Your task to perform on an android device: Clear all items from cart on target.com. Search for razer nari on target.com, select the first entry, add it to the cart, then select checkout. Image 0: 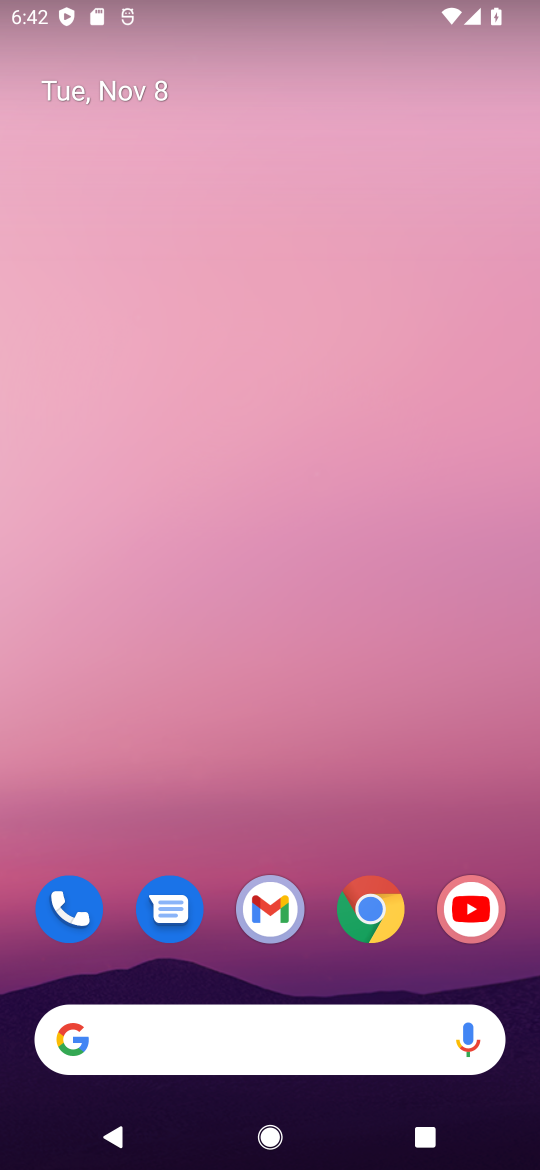
Step 0: click (369, 913)
Your task to perform on an android device: Clear all items from cart on target.com. Search for razer nari on target.com, select the first entry, add it to the cart, then select checkout. Image 1: 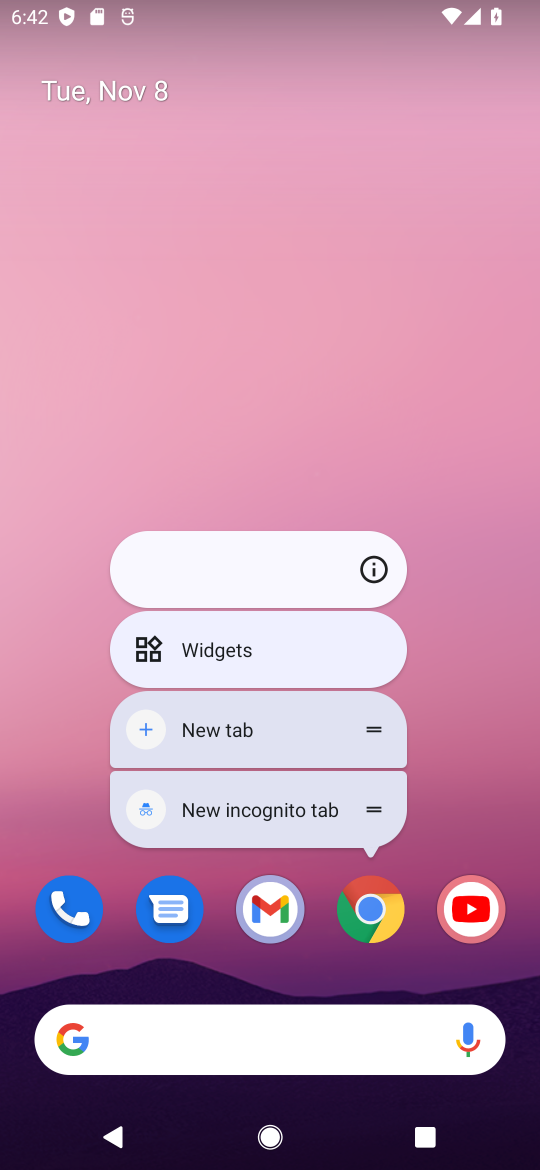
Step 1: click (385, 903)
Your task to perform on an android device: Clear all items from cart on target.com. Search for razer nari on target.com, select the first entry, add it to the cart, then select checkout. Image 2: 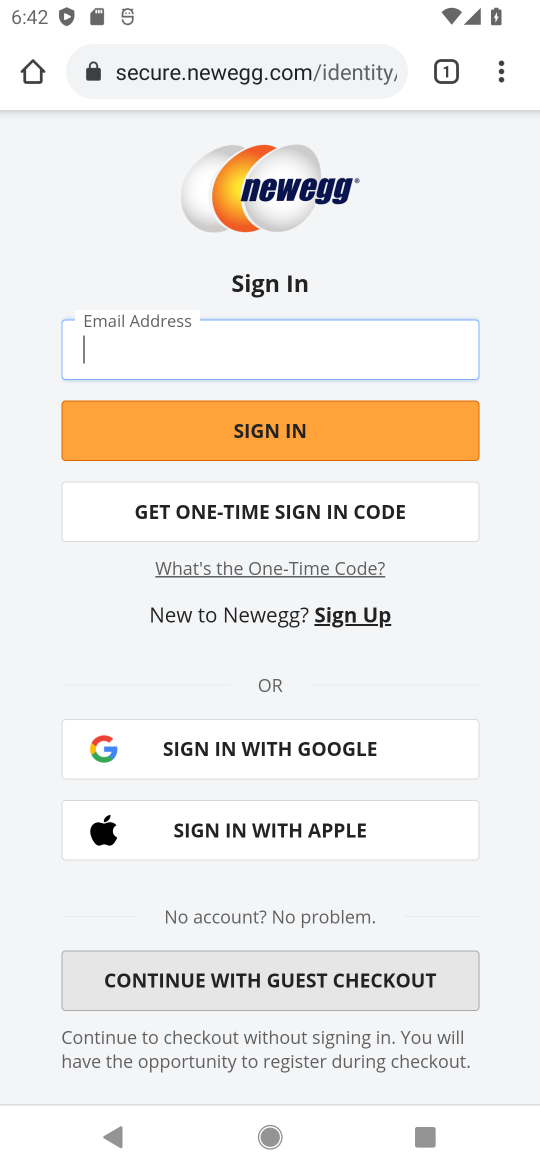
Step 2: click (345, 68)
Your task to perform on an android device: Clear all items from cart on target.com. Search for razer nari on target.com, select the first entry, add it to the cart, then select checkout. Image 3: 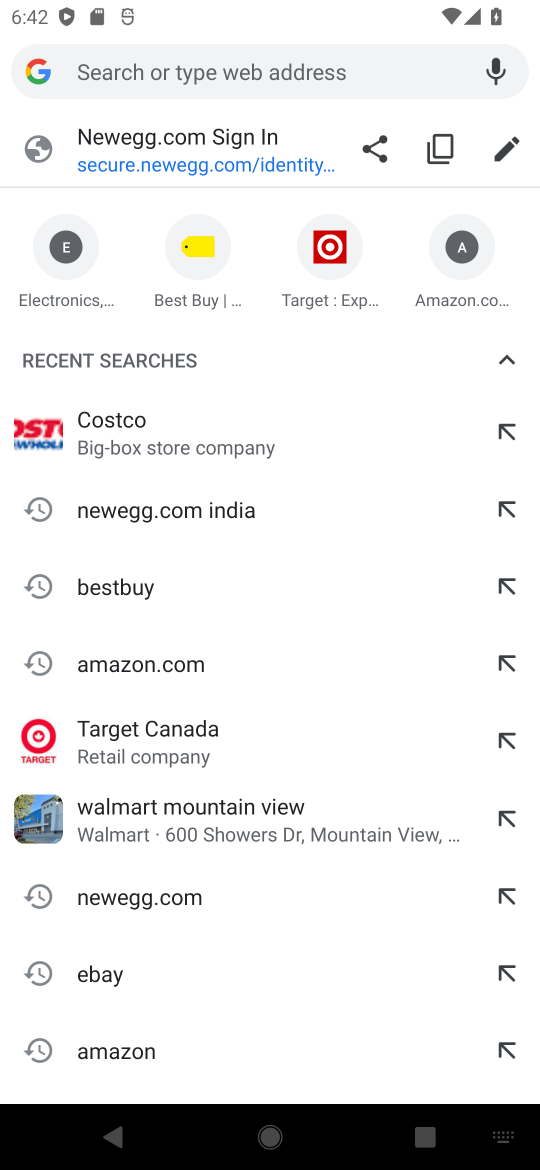
Step 3: click (328, 242)
Your task to perform on an android device: Clear all items from cart on target.com. Search for razer nari on target.com, select the first entry, add it to the cart, then select checkout. Image 4: 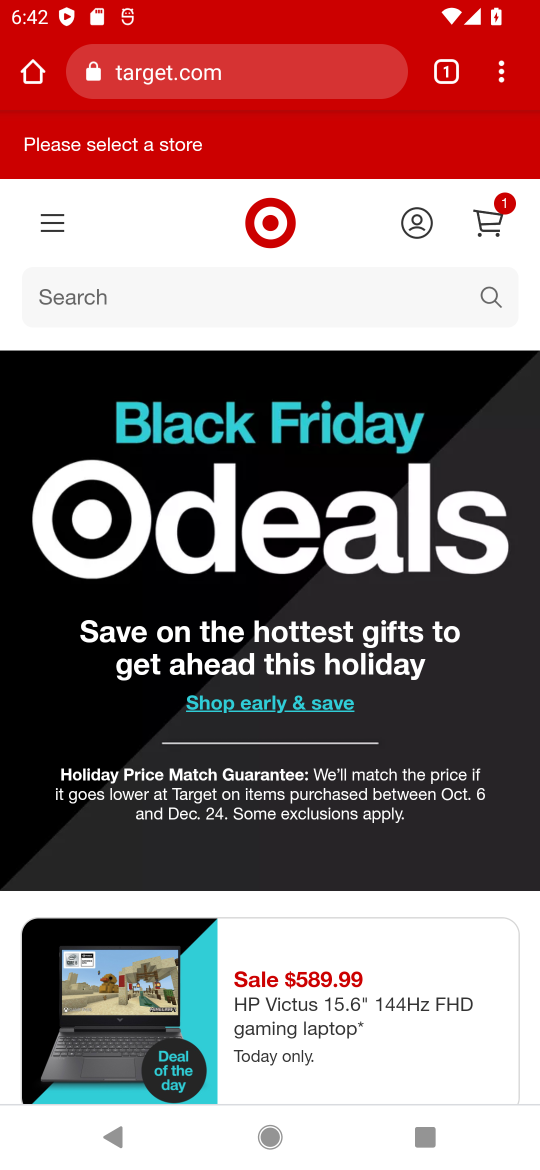
Step 4: click (205, 296)
Your task to perform on an android device: Clear all items from cart on target.com. Search for razer nari on target.com, select the first entry, add it to the cart, then select checkout. Image 5: 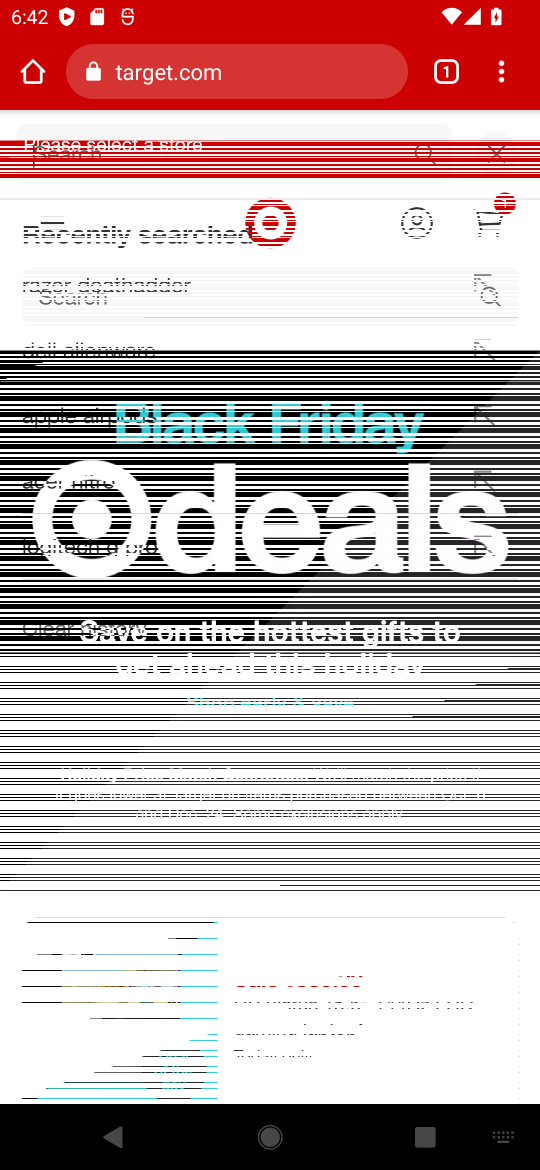
Step 5: click (37, 147)
Your task to perform on an android device: Clear all items from cart on target.com. Search for razer nari on target.com, select the first entry, add it to the cart, then select checkout. Image 6: 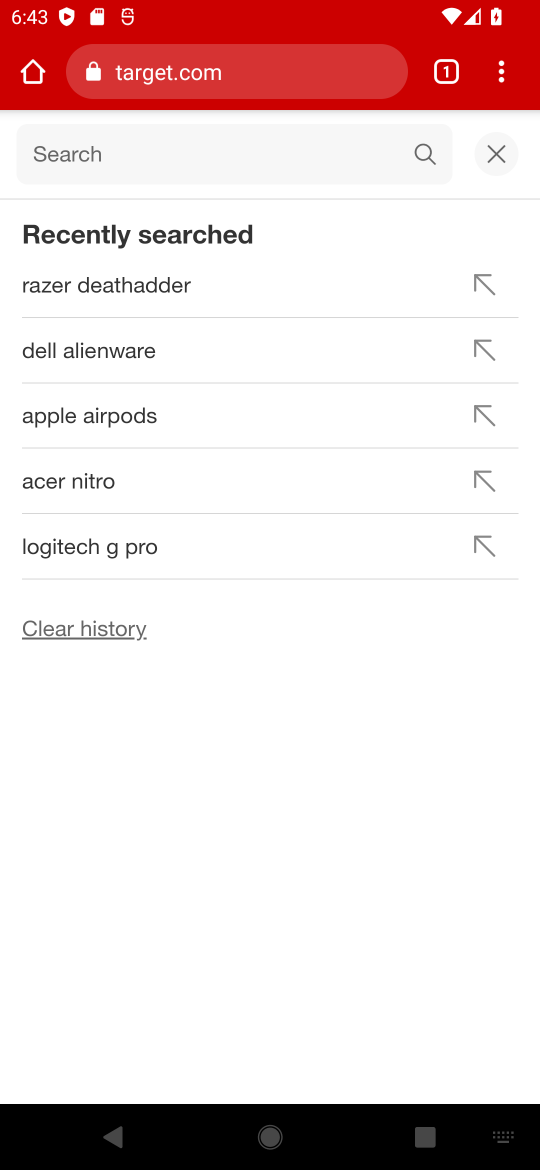
Step 6: type "razer nari"
Your task to perform on an android device: Clear all items from cart on target.com. Search for razer nari on target.com, select the first entry, add it to the cart, then select checkout. Image 7: 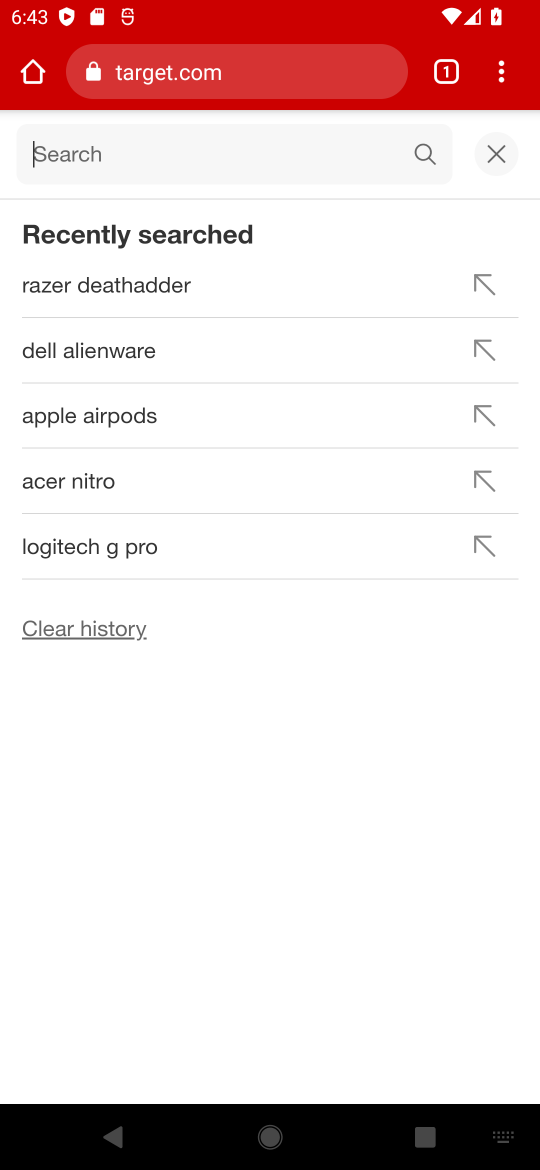
Step 7: press enter
Your task to perform on an android device: Clear all items from cart on target.com. Search for razer nari on target.com, select the first entry, add it to the cart, then select checkout. Image 8: 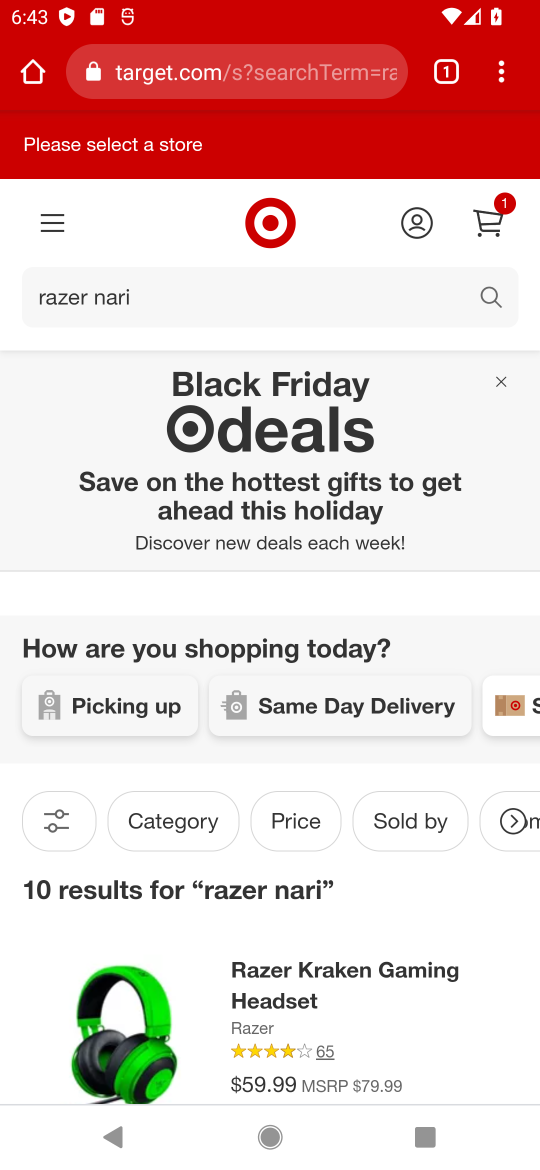
Step 8: task complete